Your task to perform on an android device: open chrome and create a bookmark for the current page Image 0: 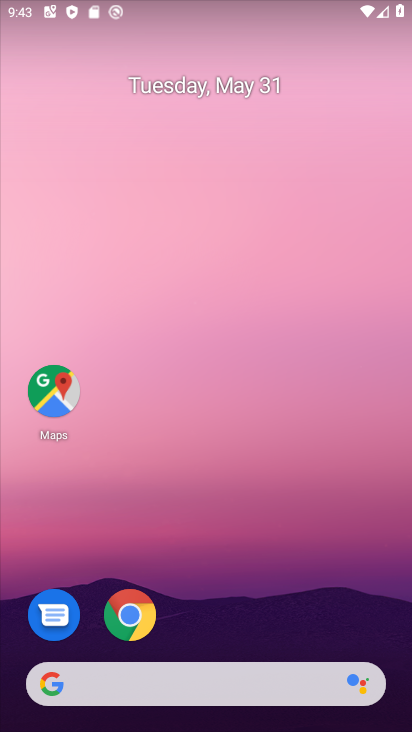
Step 0: drag from (317, 436) to (332, 18)
Your task to perform on an android device: open chrome and create a bookmark for the current page Image 1: 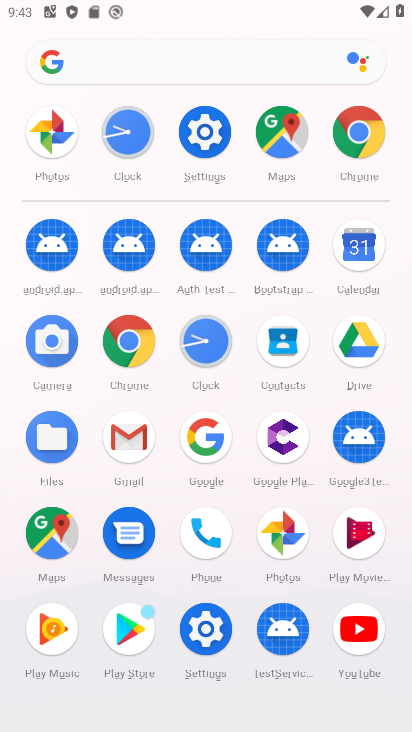
Step 1: click (355, 139)
Your task to perform on an android device: open chrome and create a bookmark for the current page Image 2: 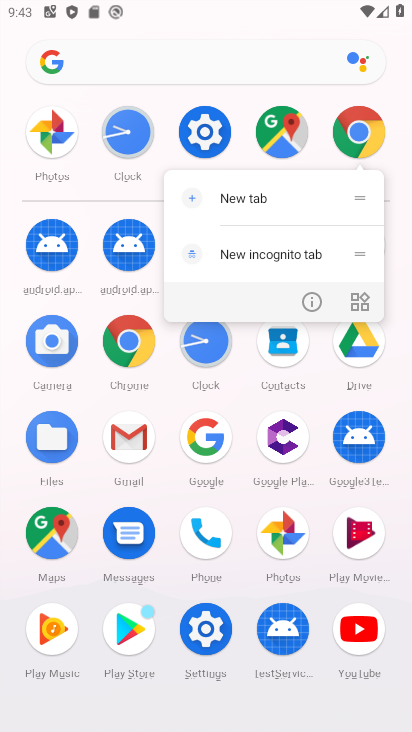
Step 2: click (355, 139)
Your task to perform on an android device: open chrome and create a bookmark for the current page Image 3: 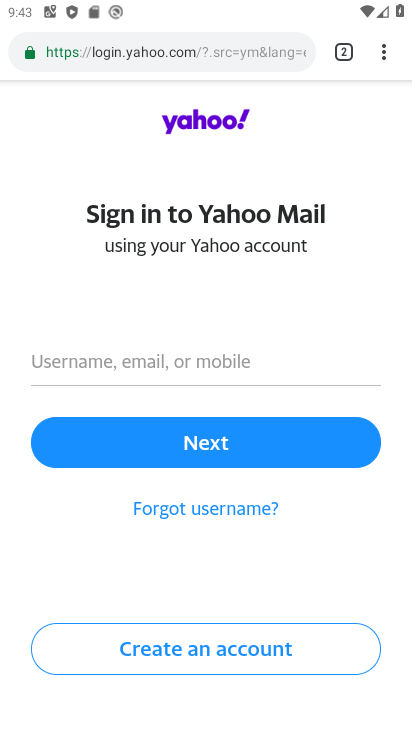
Step 3: task complete